Your task to perform on an android device: set the stopwatch Image 0: 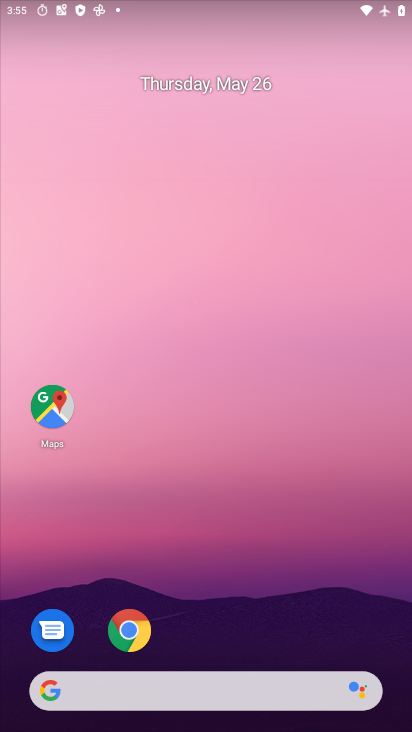
Step 0: drag from (171, 635) to (206, 15)
Your task to perform on an android device: set the stopwatch Image 1: 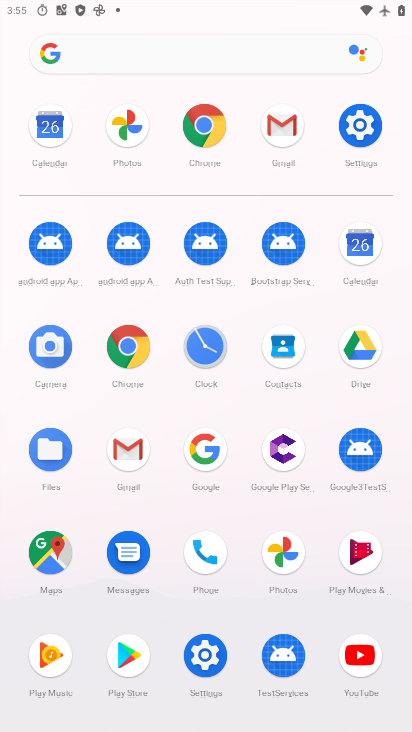
Step 1: click (198, 360)
Your task to perform on an android device: set the stopwatch Image 2: 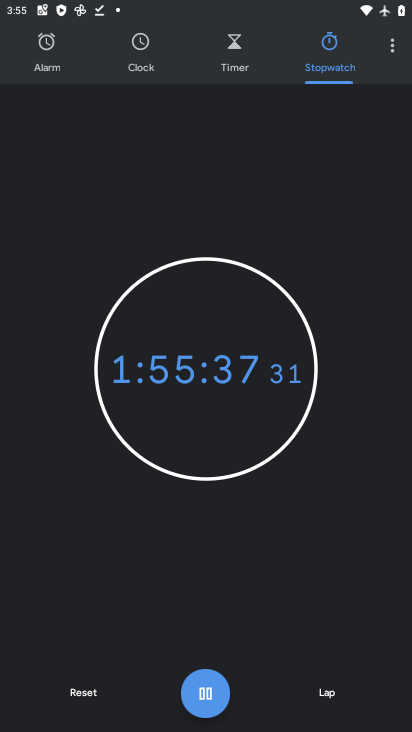
Step 2: click (77, 683)
Your task to perform on an android device: set the stopwatch Image 3: 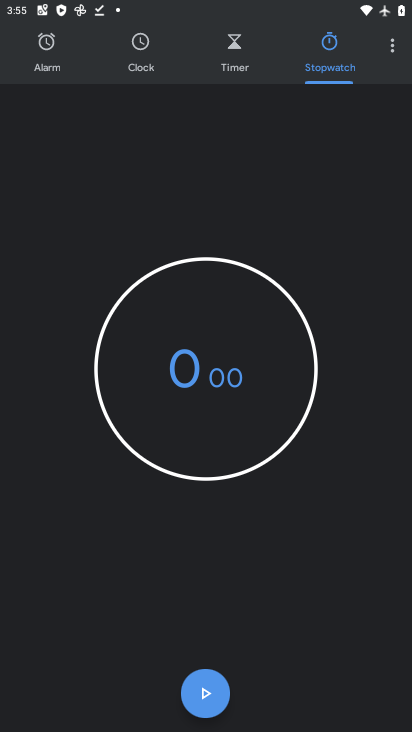
Step 3: click (209, 677)
Your task to perform on an android device: set the stopwatch Image 4: 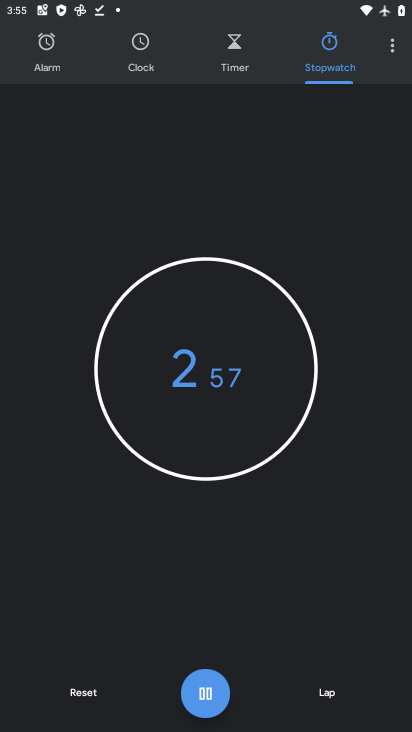
Step 4: task complete